Your task to perform on an android device: Open the map Image 0: 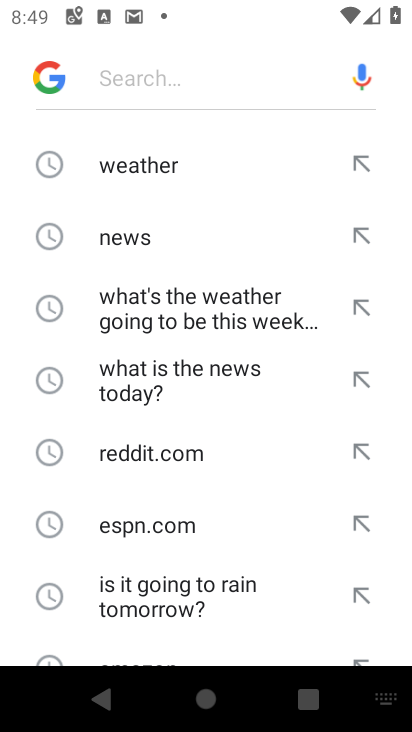
Step 0: press home button
Your task to perform on an android device: Open the map Image 1: 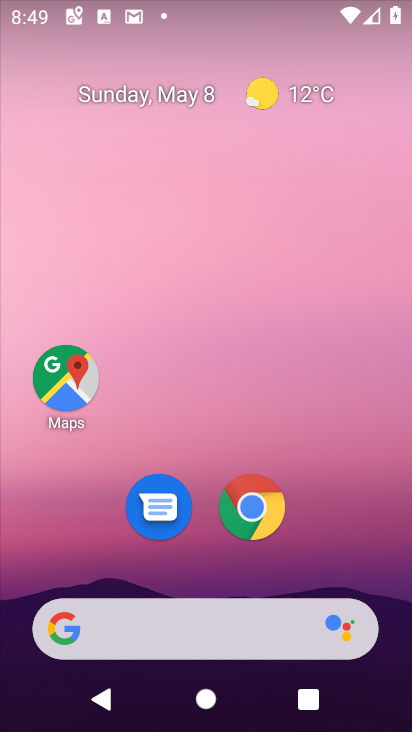
Step 1: click (77, 379)
Your task to perform on an android device: Open the map Image 2: 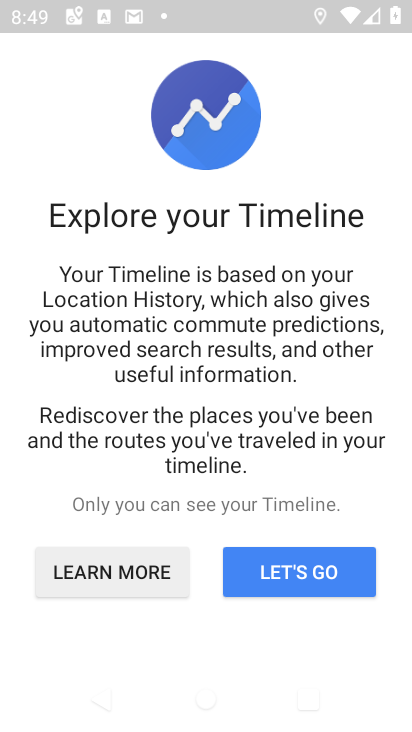
Step 2: click (99, 695)
Your task to perform on an android device: Open the map Image 3: 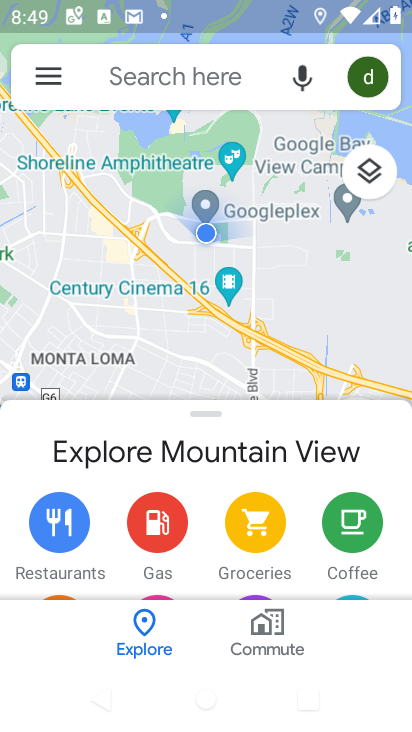
Step 3: task complete